Your task to perform on an android device: open chrome and create a bookmark for the current page Image 0: 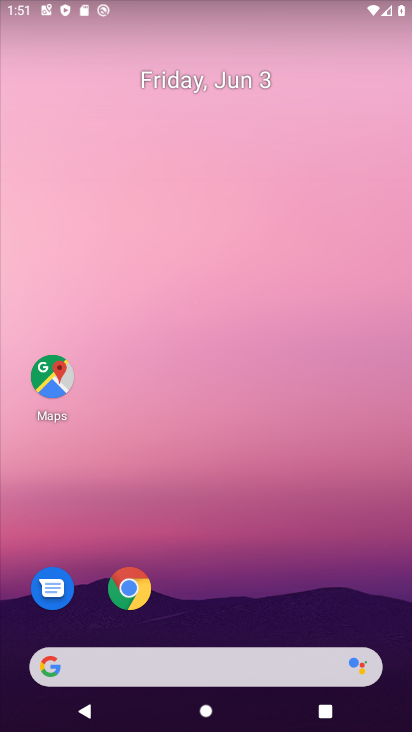
Step 0: drag from (225, 555) to (261, 109)
Your task to perform on an android device: open chrome and create a bookmark for the current page Image 1: 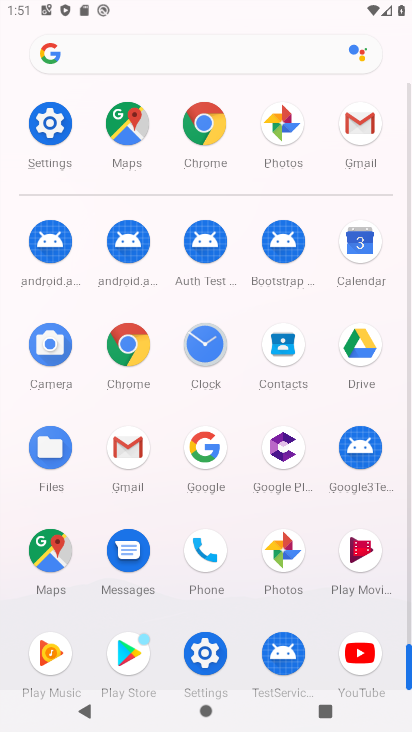
Step 1: drag from (240, 190) to (248, 37)
Your task to perform on an android device: open chrome and create a bookmark for the current page Image 2: 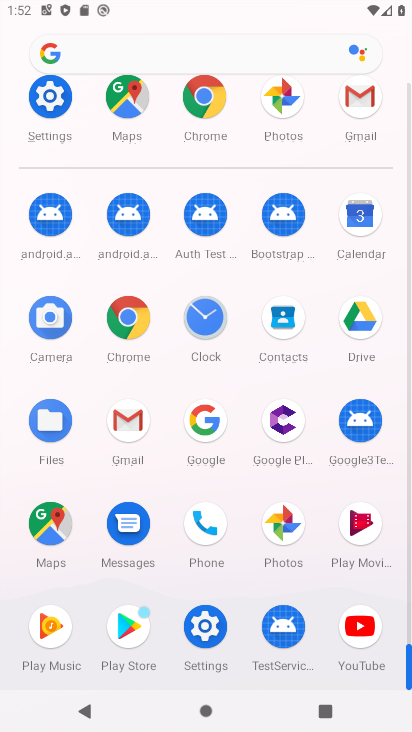
Step 2: click (130, 320)
Your task to perform on an android device: open chrome and create a bookmark for the current page Image 3: 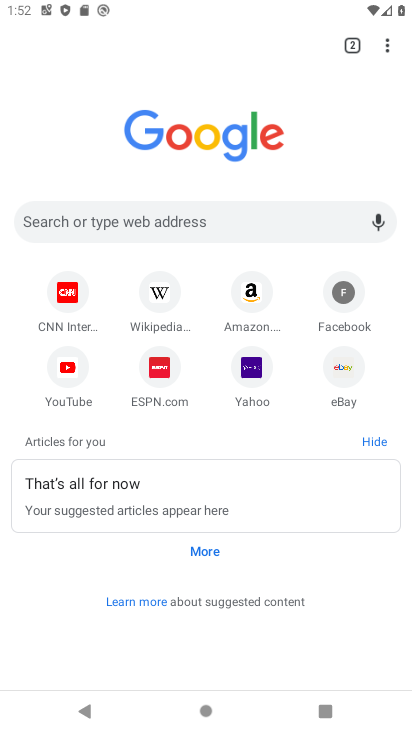
Step 3: click (389, 43)
Your task to perform on an android device: open chrome and create a bookmark for the current page Image 4: 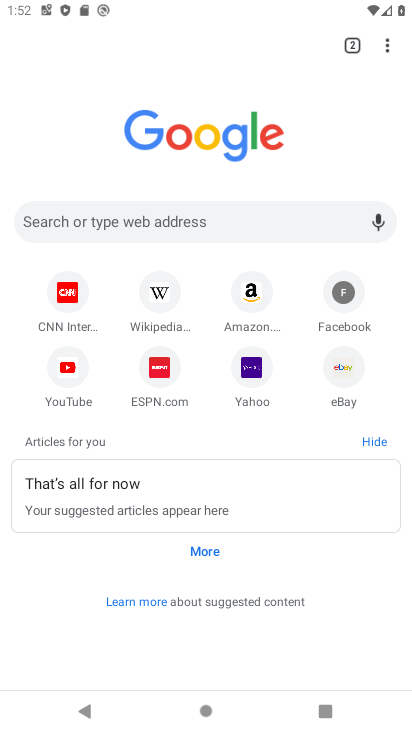
Step 4: click (387, 52)
Your task to perform on an android device: open chrome and create a bookmark for the current page Image 5: 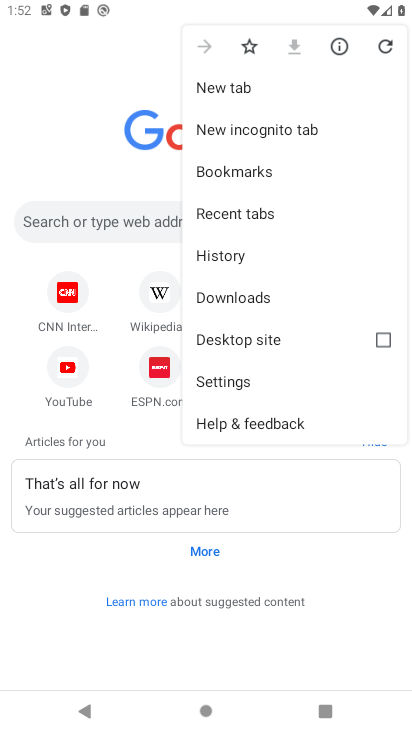
Step 5: click (252, 48)
Your task to perform on an android device: open chrome and create a bookmark for the current page Image 6: 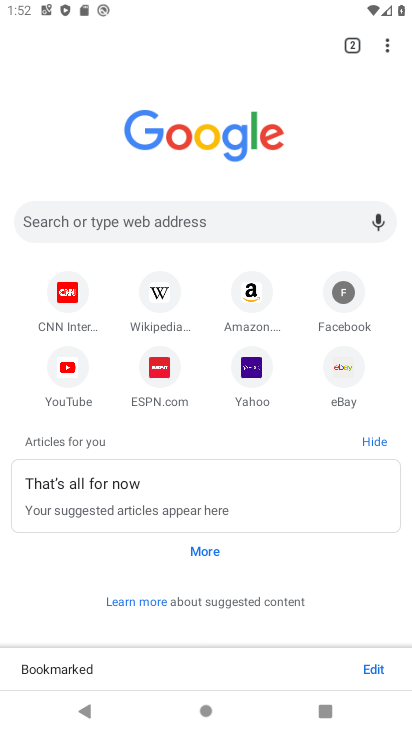
Step 6: task complete